Your task to perform on an android device: Go to Amazon Image 0: 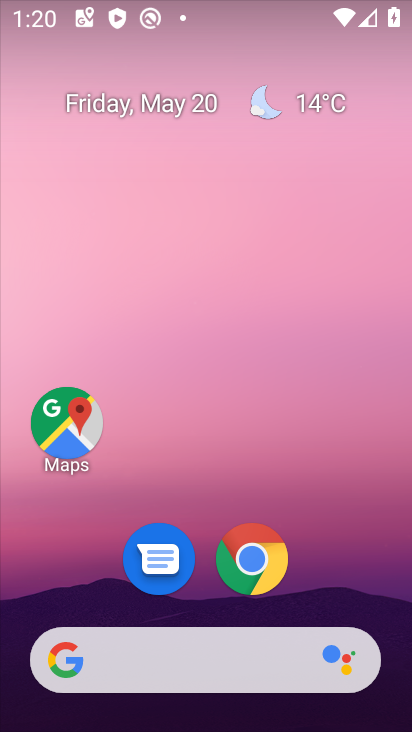
Step 0: click (266, 560)
Your task to perform on an android device: Go to Amazon Image 1: 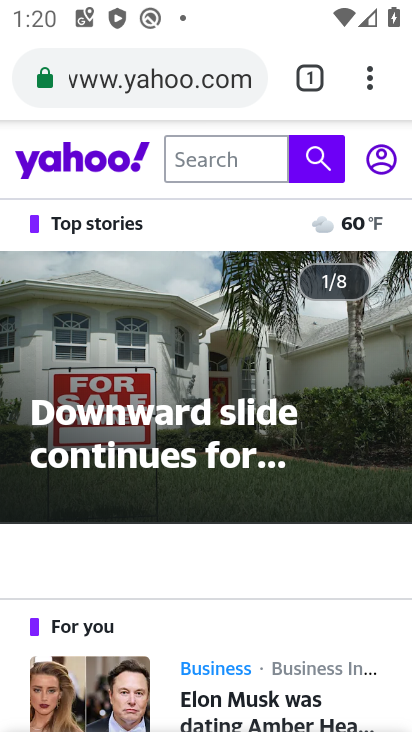
Step 1: click (216, 89)
Your task to perform on an android device: Go to Amazon Image 2: 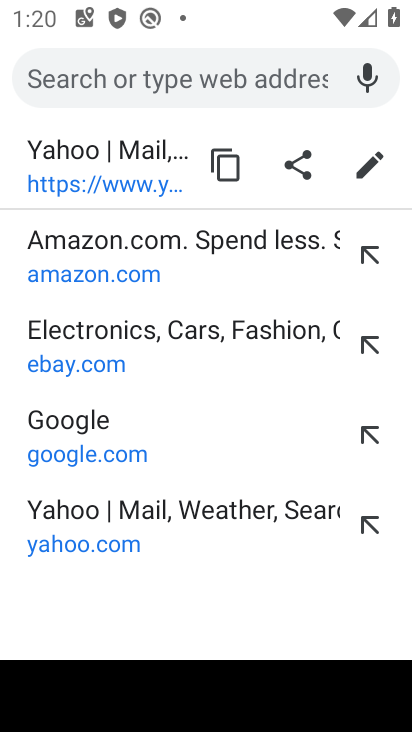
Step 2: click (244, 238)
Your task to perform on an android device: Go to Amazon Image 3: 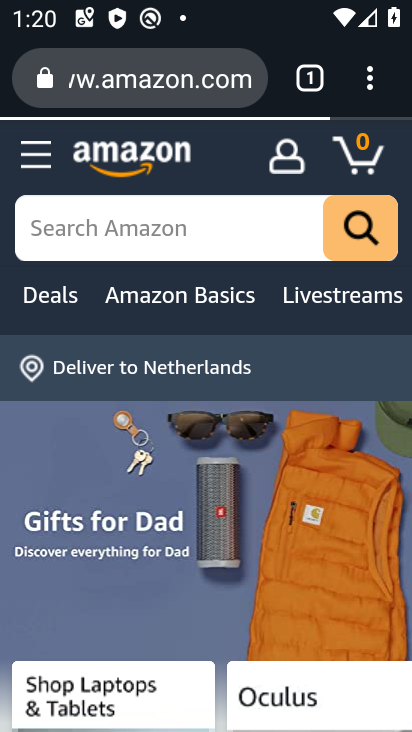
Step 3: task complete